Your task to perform on an android device: Open CNN.com Image 0: 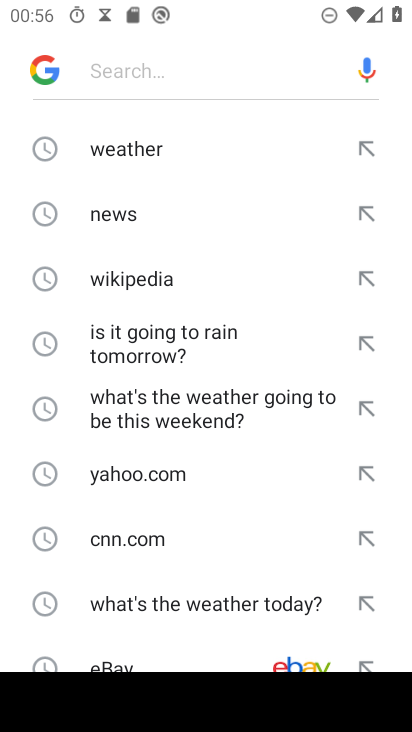
Step 0: press home button
Your task to perform on an android device: Open CNN.com Image 1: 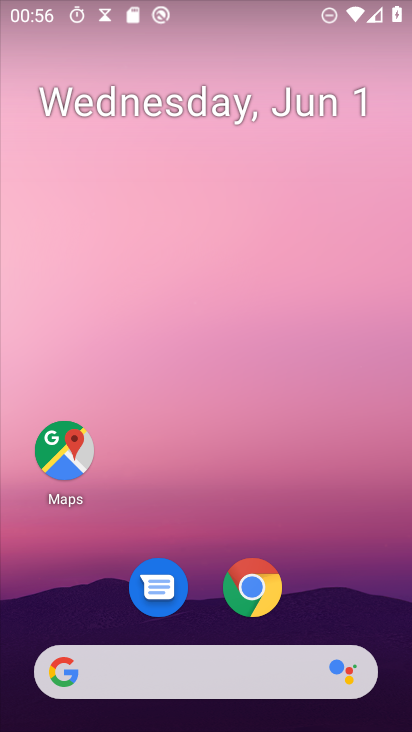
Step 1: click (252, 586)
Your task to perform on an android device: Open CNN.com Image 2: 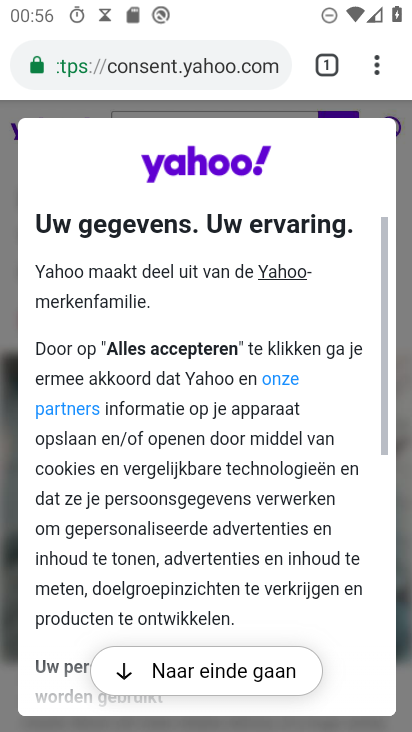
Step 2: click (199, 59)
Your task to perform on an android device: Open CNN.com Image 3: 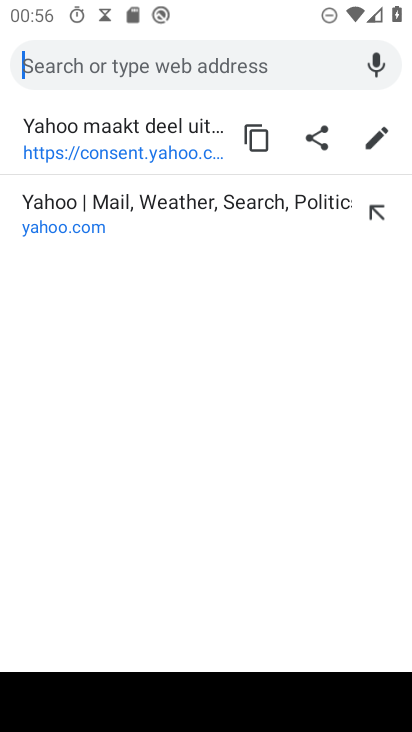
Step 3: type "CNN.com"
Your task to perform on an android device: Open CNN.com Image 4: 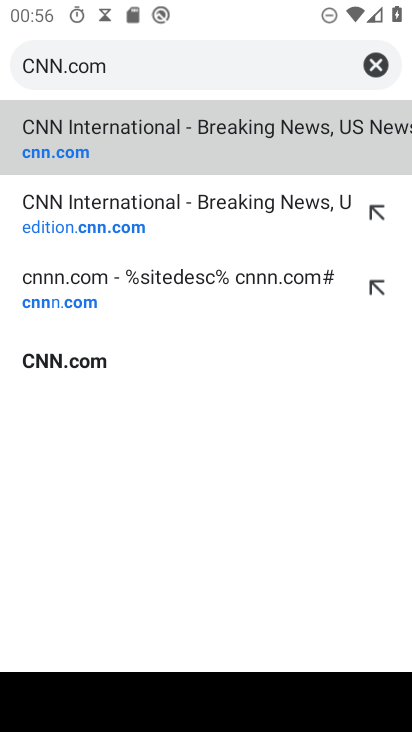
Step 4: click (135, 149)
Your task to perform on an android device: Open CNN.com Image 5: 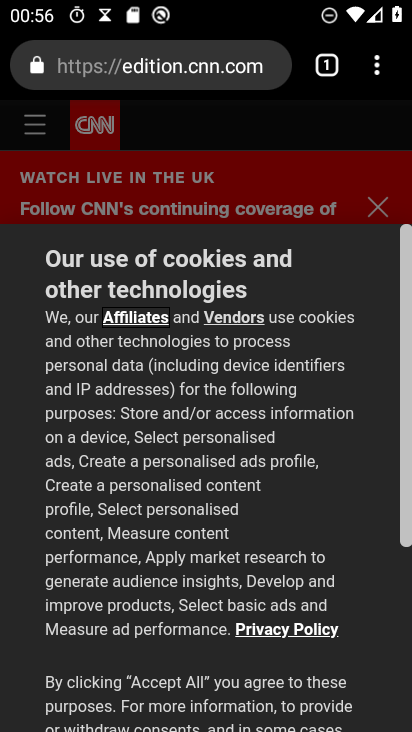
Step 5: task complete